Your task to perform on an android device: Go to Wikipedia Image 0: 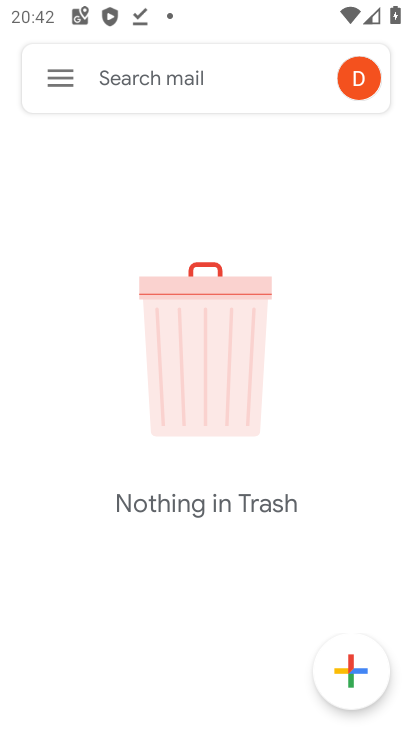
Step 0: press back button
Your task to perform on an android device: Go to Wikipedia Image 1: 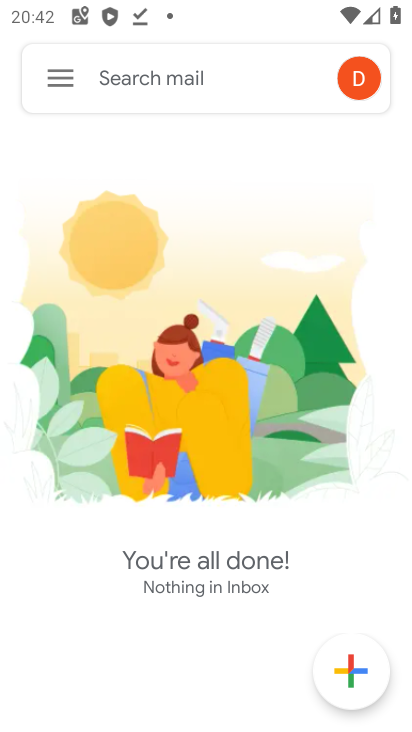
Step 1: press home button
Your task to perform on an android device: Go to Wikipedia Image 2: 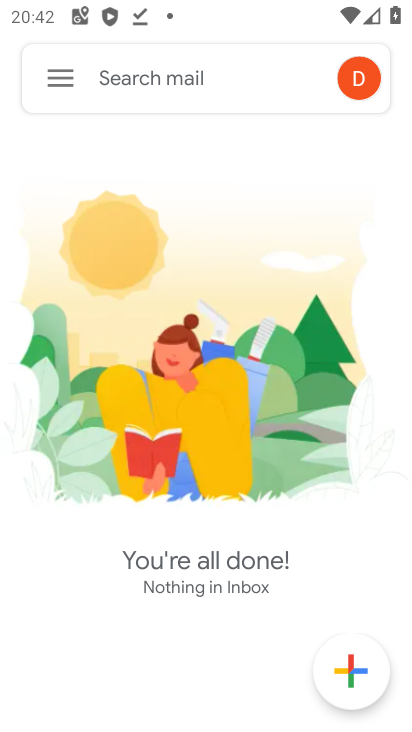
Step 2: press home button
Your task to perform on an android device: Go to Wikipedia Image 3: 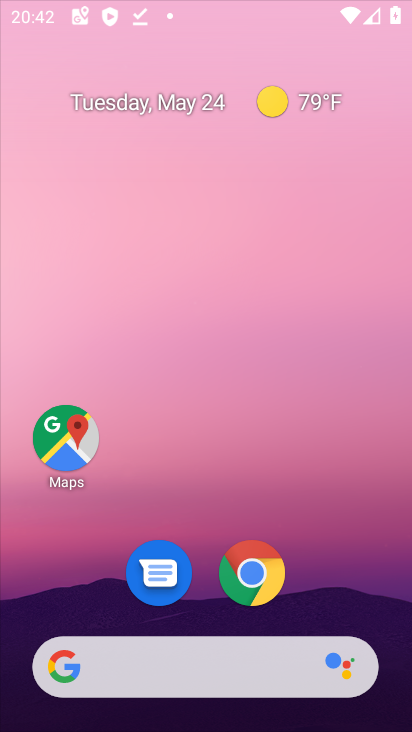
Step 3: press home button
Your task to perform on an android device: Go to Wikipedia Image 4: 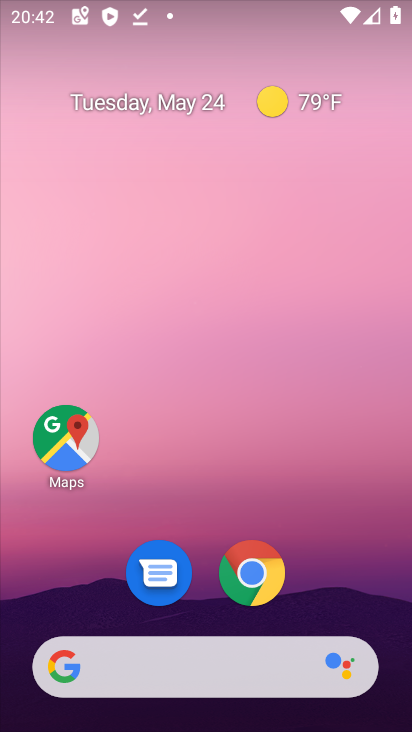
Step 4: click (202, 135)
Your task to perform on an android device: Go to Wikipedia Image 5: 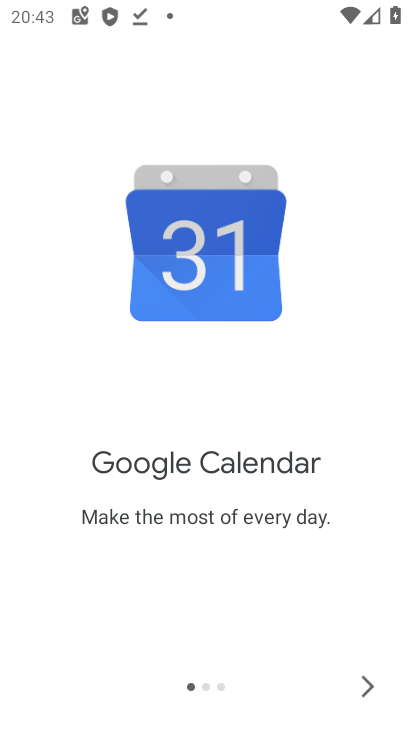
Step 5: press back button
Your task to perform on an android device: Go to Wikipedia Image 6: 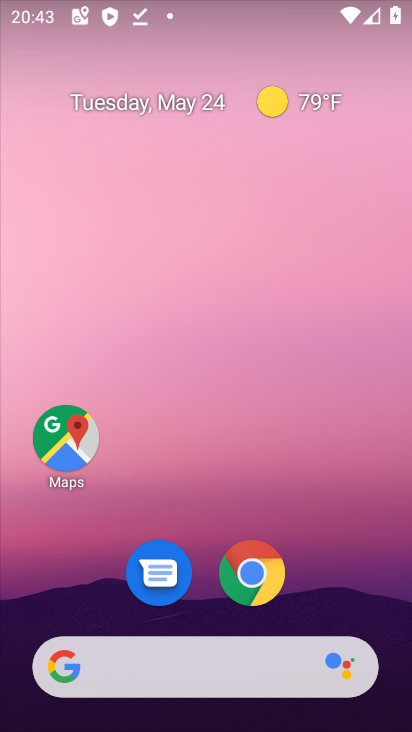
Step 6: drag from (303, 693) to (215, 56)
Your task to perform on an android device: Go to Wikipedia Image 7: 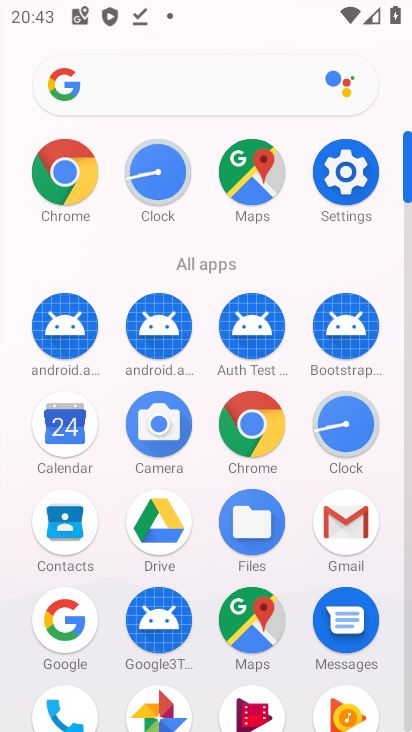
Step 7: click (57, 176)
Your task to perform on an android device: Go to Wikipedia Image 8: 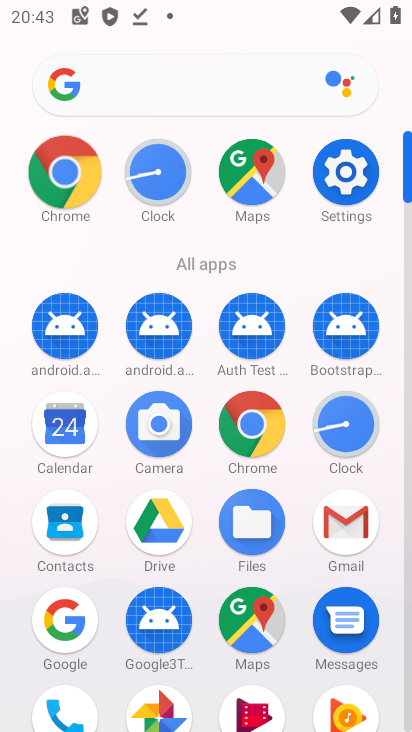
Step 8: click (57, 172)
Your task to perform on an android device: Go to Wikipedia Image 9: 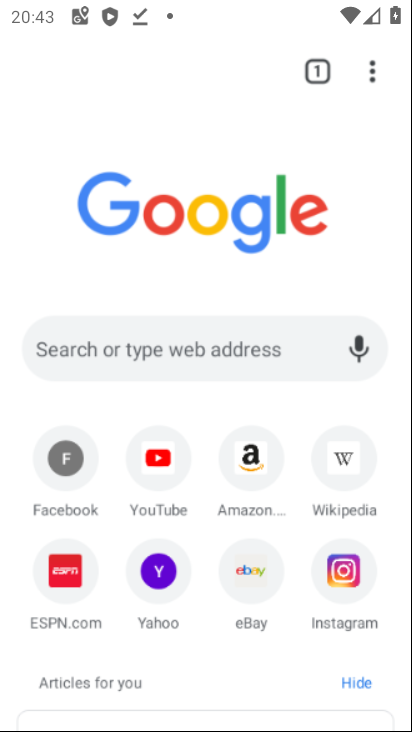
Step 9: click (65, 183)
Your task to perform on an android device: Go to Wikipedia Image 10: 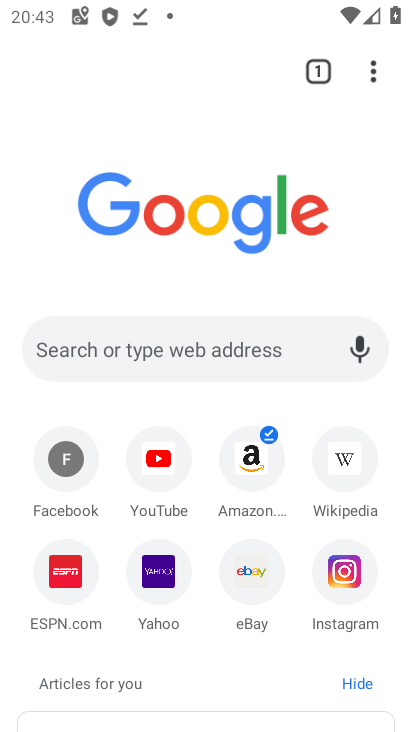
Step 10: click (330, 477)
Your task to perform on an android device: Go to Wikipedia Image 11: 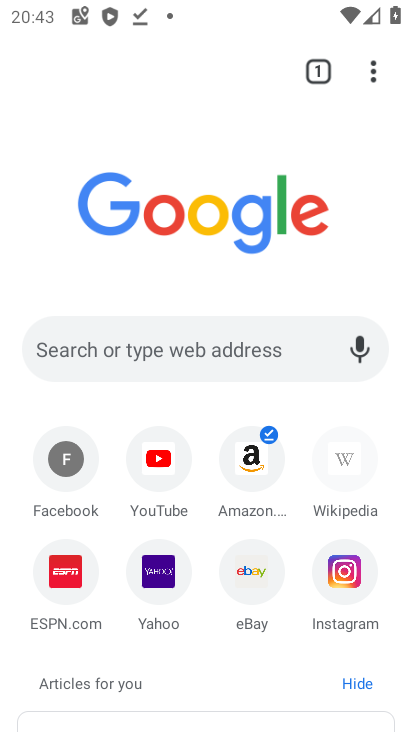
Step 11: click (331, 473)
Your task to perform on an android device: Go to Wikipedia Image 12: 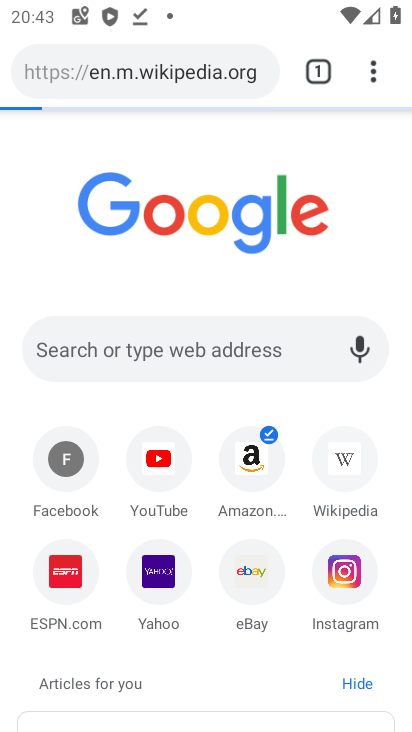
Step 12: click (335, 468)
Your task to perform on an android device: Go to Wikipedia Image 13: 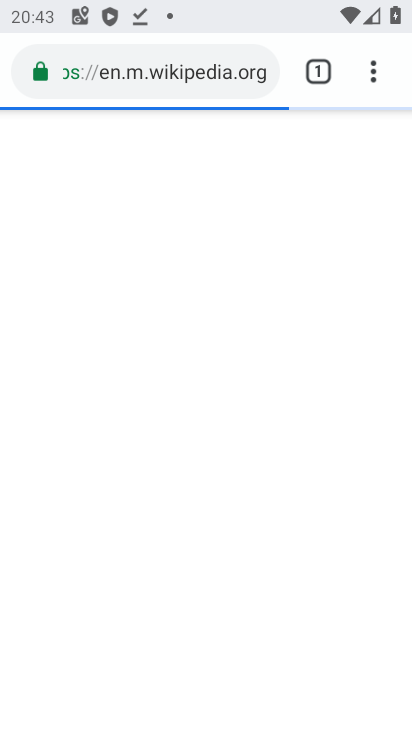
Step 13: click (339, 468)
Your task to perform on an android device: Go to Wikipedia Image 14: 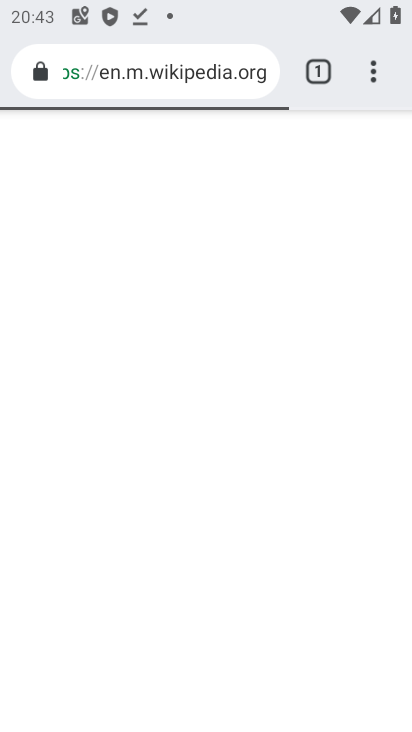
Step 14: click (339, 468)
Your task to perform on an android device: Go to Wikipedia Image 15: 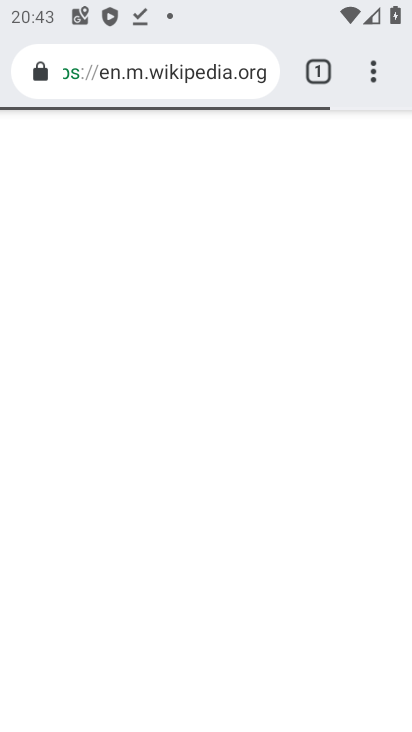
Step 15: click (340, 468)
Your task to perform on an android device: Go to Wikipedia Image 16: 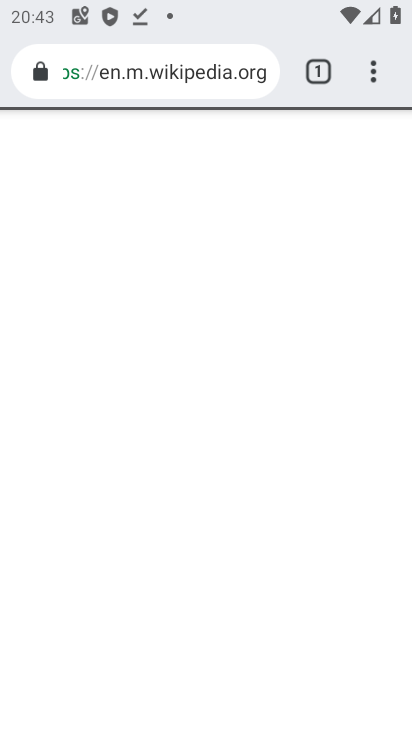
Step 16: click (340, 468)
Your task to perform on an android device: Go to Wikipedia Image 17: 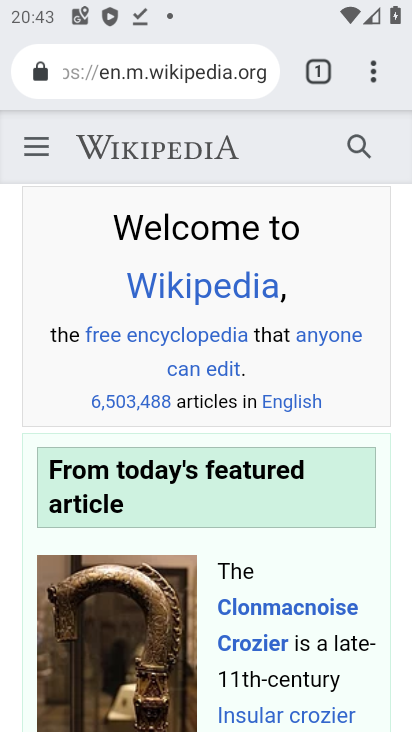
Step 17: task complete